Your task to perform on an android device: check battery use Image 0: 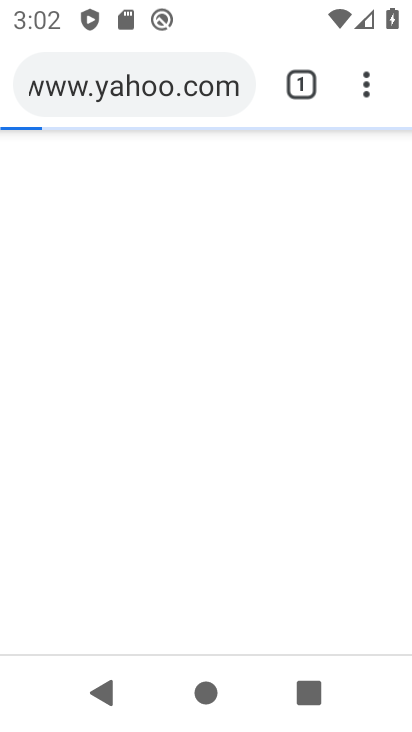
Step 0: press home button
Your task to perform on an android device: check battery use Image 1: 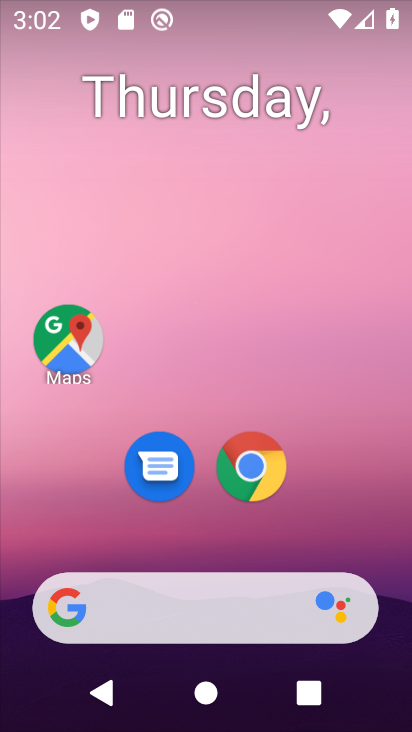
Step 1: drag from (212, 559) to (182, 67)
Your task to perform on an android device: check battery use Image 2: 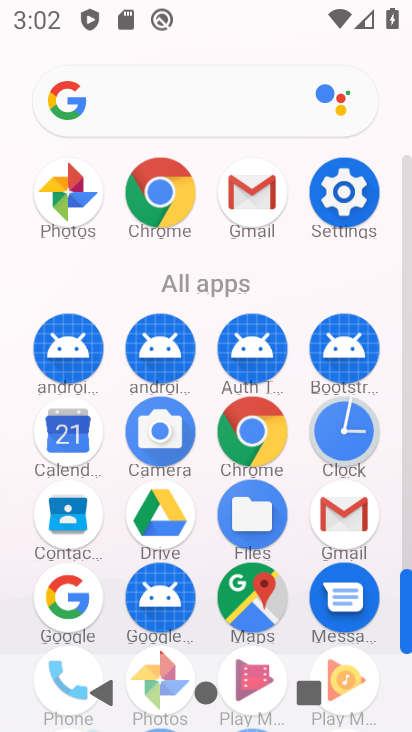
Step 2: click (346, 212)
Your task to perform on an android device: check battery use Image 3: 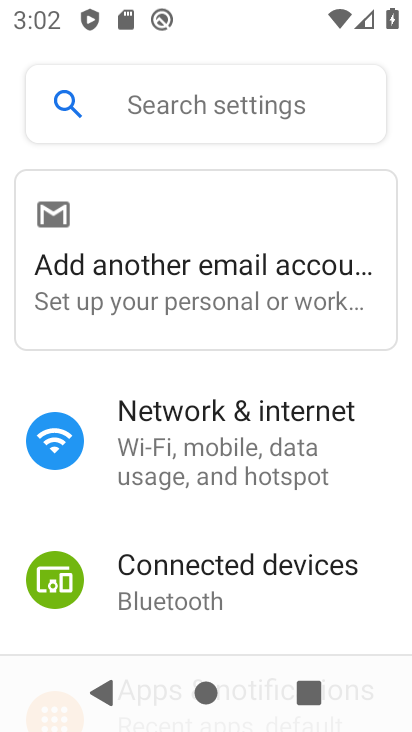
Step 3: drag from (228, 485) to (209, 20)
Your task to perform on an android device: check battery use Image 4: 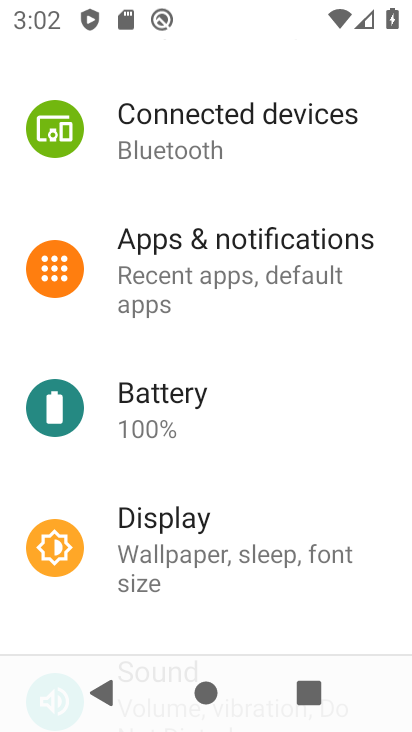
Step 4: click (207, 415)
Your task to perform on an android device: check battery use Image 5: 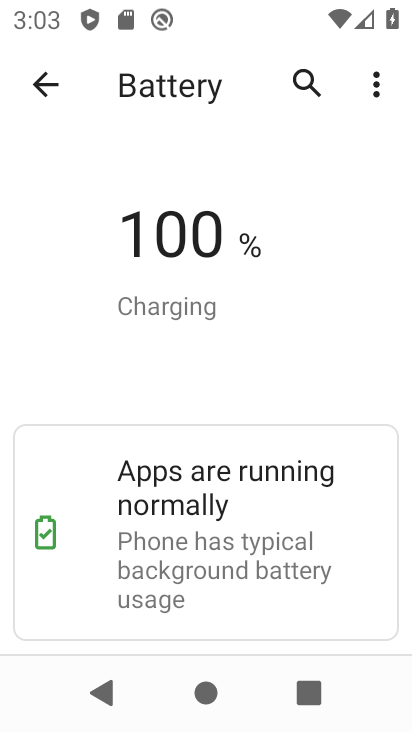
Step 5: drag from (208, 582) to (186, 412)
Your task to perform on an android device: check battery use Image 6: 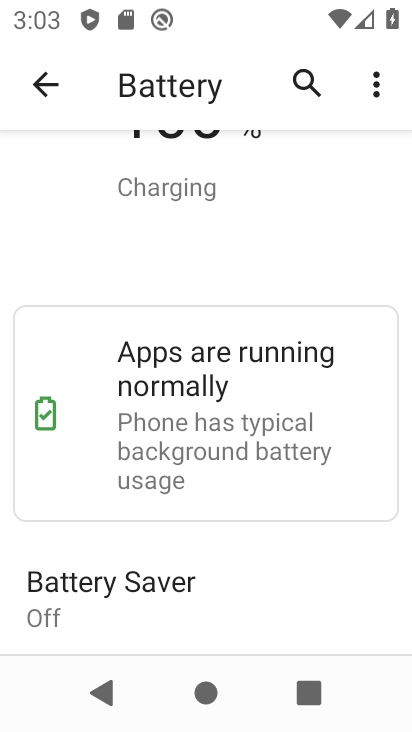
Step 6: click (359, 99)
Your task to perform on an android device: check battery use Image 7: 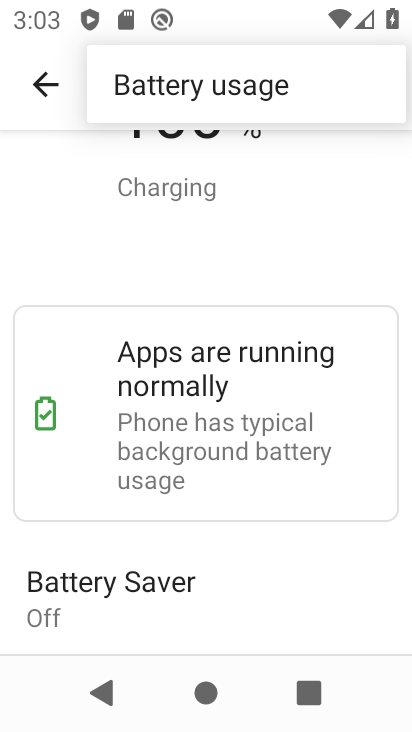
Step 7: click (181, 82)
Your task to perform on an android device: check battery use Image 8: 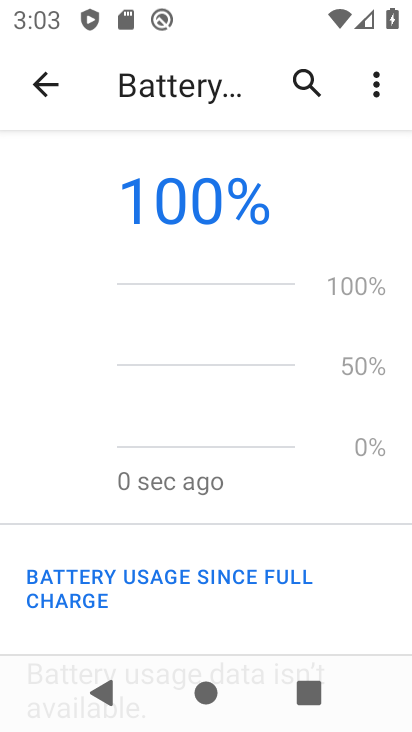
Step 8: task complete